Your task to perform on an android device: Search for seafood restaurants on Google Maps Image 0: 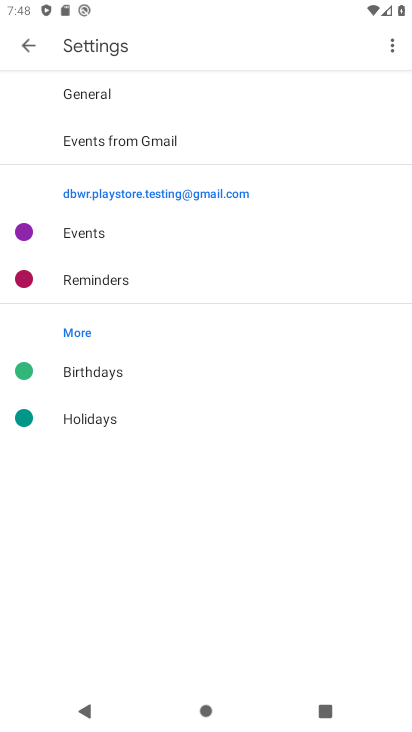
Step 0: press back button
Your task to perform on an android device: Search for seafood restaurants on Google Maps Image 1: 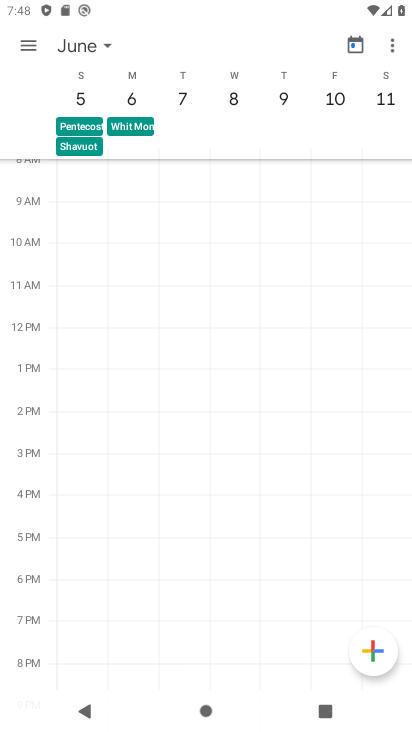
Step 1: press back button
Your task to perform on an android device: Search for seafood restaurants on Google Maps Image 2: 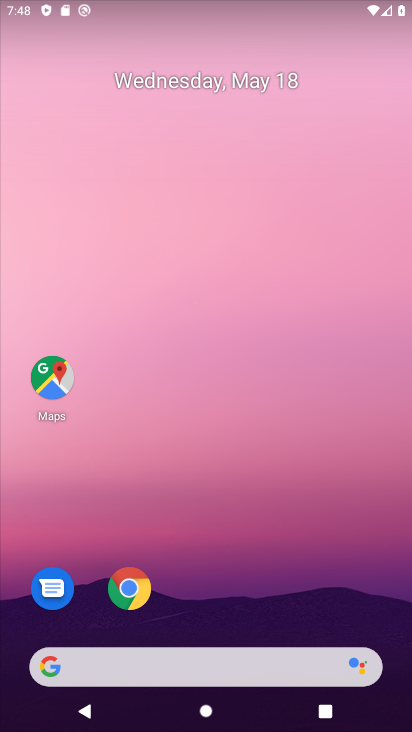
Step 2: drag from (258, 582) to (217, 30)
Your task to perform on an android device: Search for seafood restaurants on Google Maps Image 3: 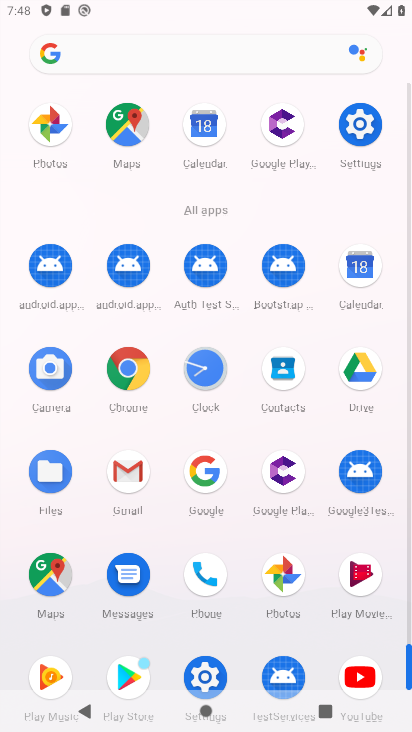
Step 3: click (45, 573)
Your task to perform on an android device: Search for seafood restaurants on Google Maps Image 4: 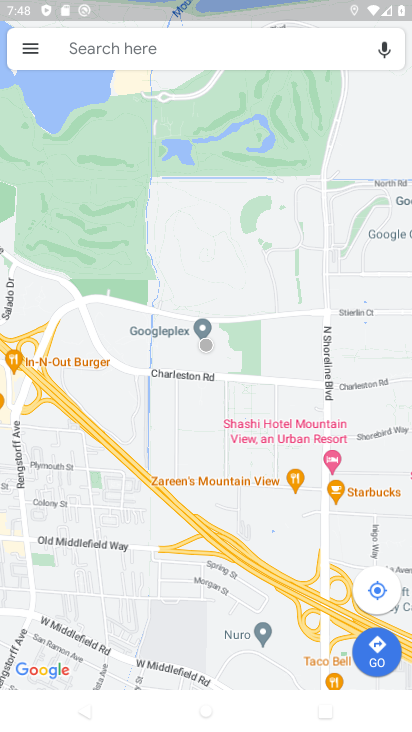
Step 4: click (210, 48)
Your task to perform on an android device: Search for seafood restaurants on Google Maps Image 5: 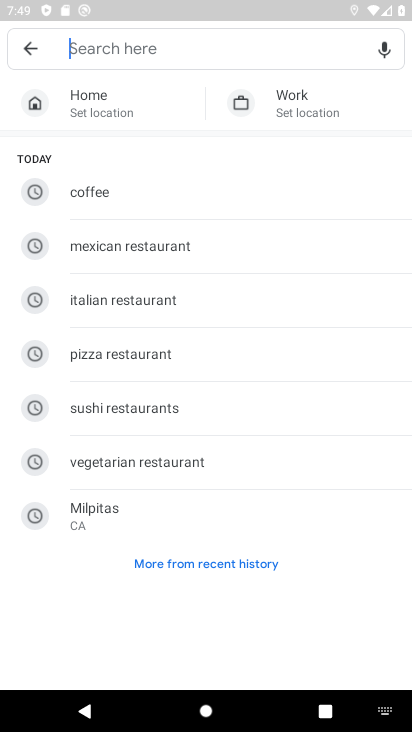
Step 5: type "seafood restaurants"
Your task to perform on an android device: Search for seafood restaurants on Google Maps Image 6: 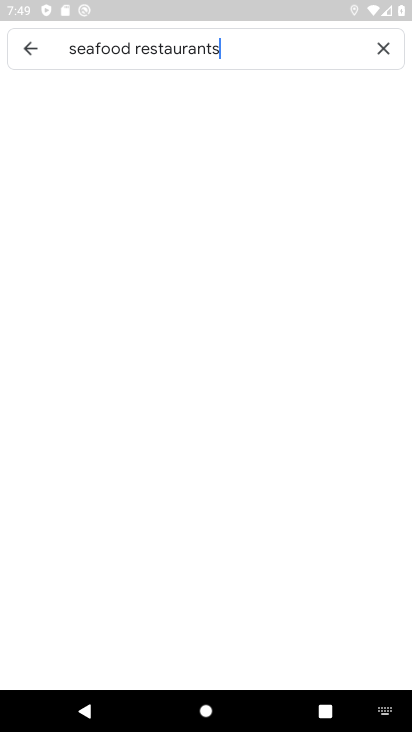
Step 6: type ""
Your task to perform on an android device: Search for seafood restaurants on Google Maps Image 7: 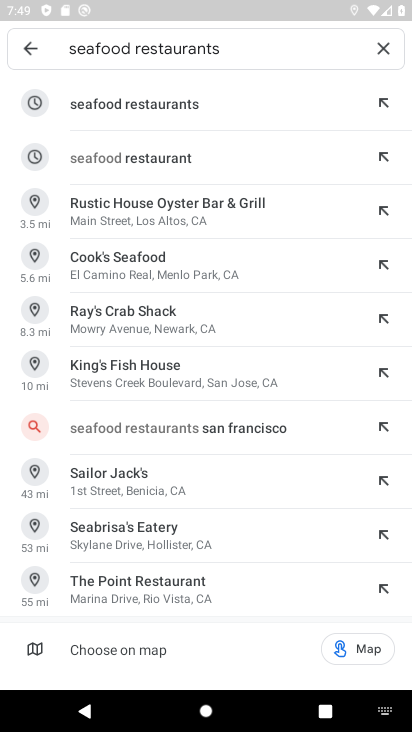
Step 7: click (169, 105)
Your task to perform on an android device: Search for seafood restaurants on Google Maps Image 8: 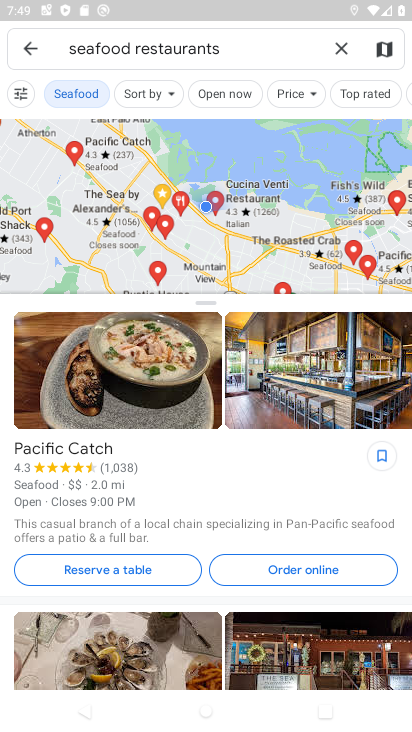
Step 8: task complete